Your task to perform on an android device: turn on improve location accuracy Image 0: 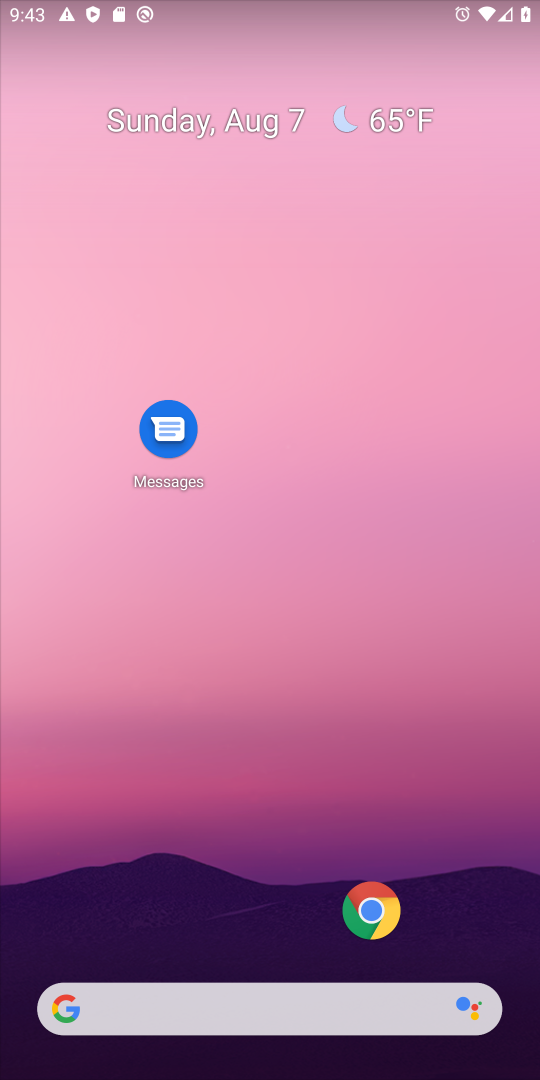
Step 0: drag from (319, 902) to (334, 530)
Your task to perform on an android device: turn on improve location accuracy Image 1: 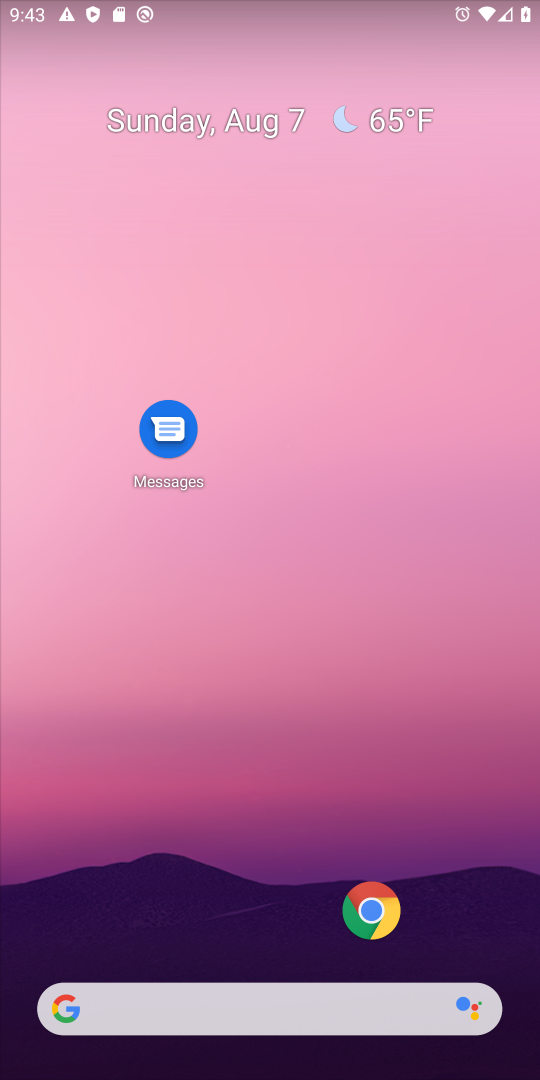
Step 1: drag from (198, 945) to (221, 564)
Your task to perform on an android device: turn on improve location accuracy Image 2: 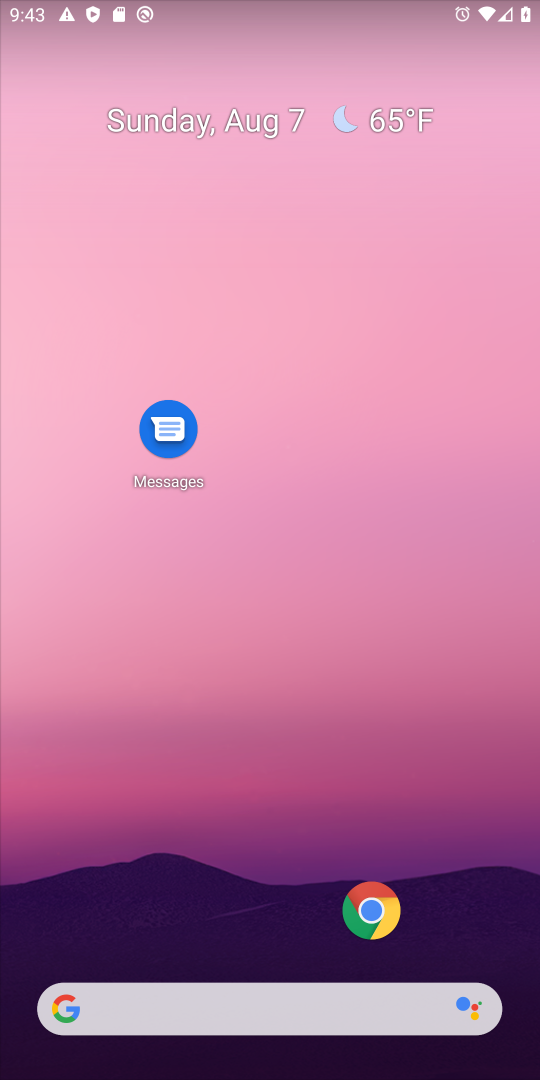
Step 2: drag from (305, 755) to (360, 399)
Your task to perform on an android device: turn on improve location accuracy Image 3: 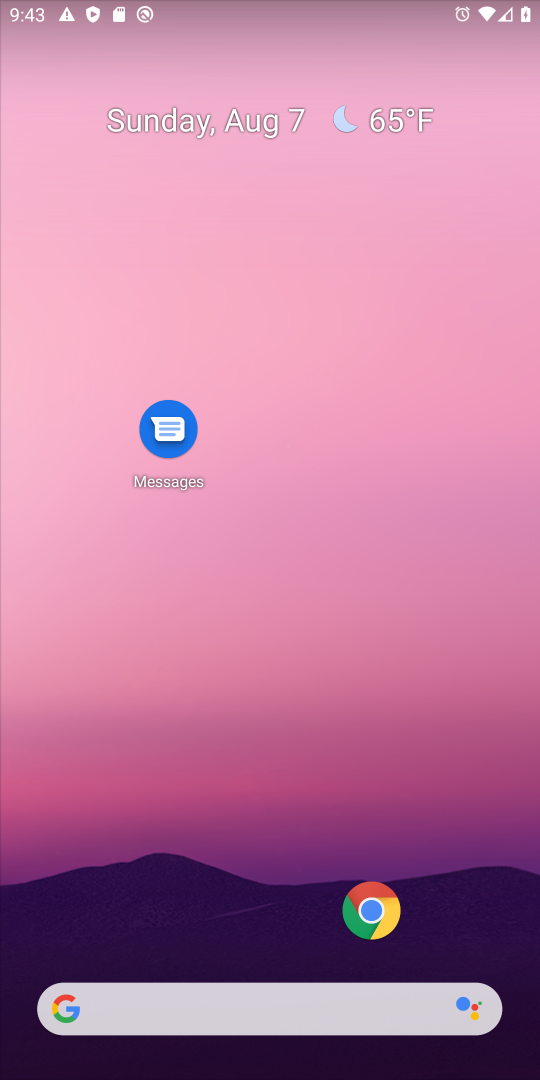
Step 3: drag from (219, 919) to (284, 308)
Your task to perform on an android device: turn on improve location accuracy Image 4: 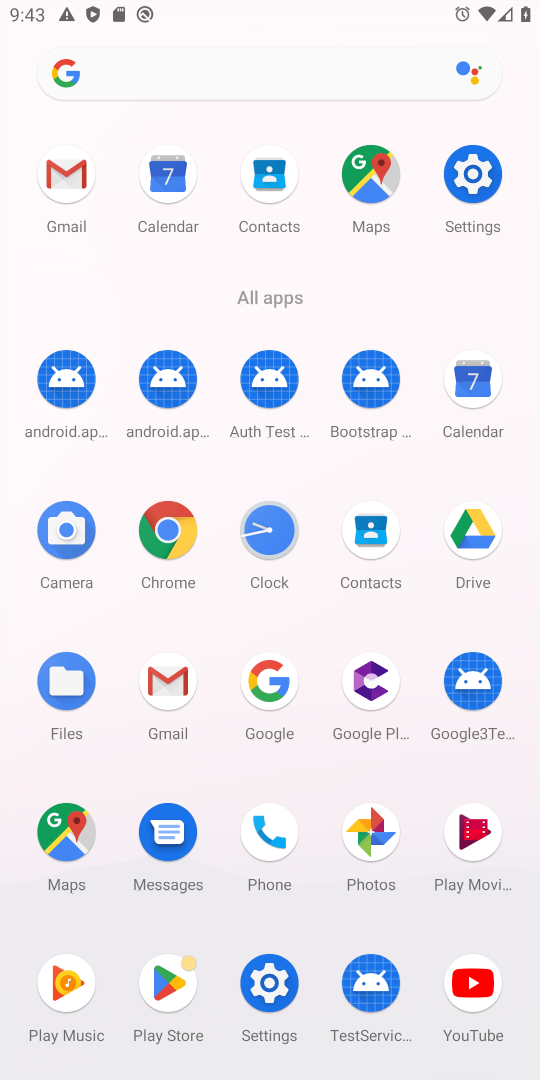
Step 4: click (458, 176)
Your task to perform on an android device: turn on improve location accuracy Image 5: 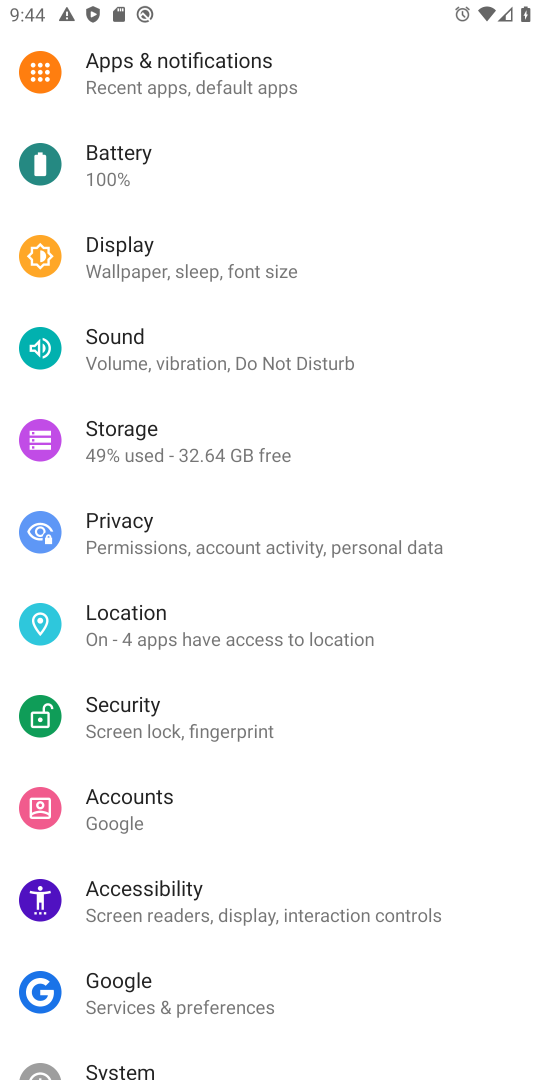
Step 5: drag from (124, 995) to (183, 519)
Your task to perform on an android device: turn on improve location accuracy Image 6: 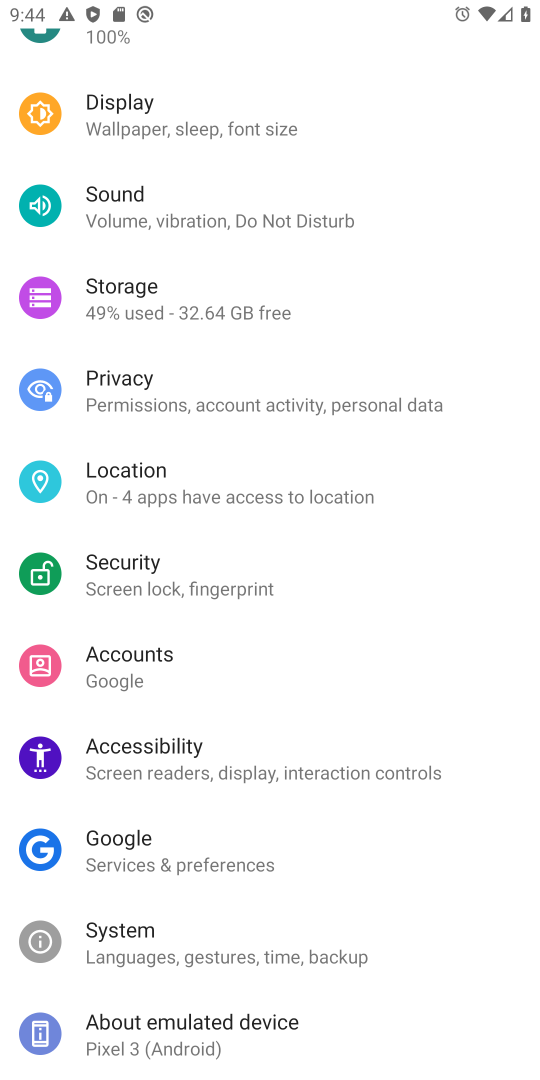
Step 6: click (163, 490)
Your task to perform on an android device: turn on improve location accuracy Image 7: 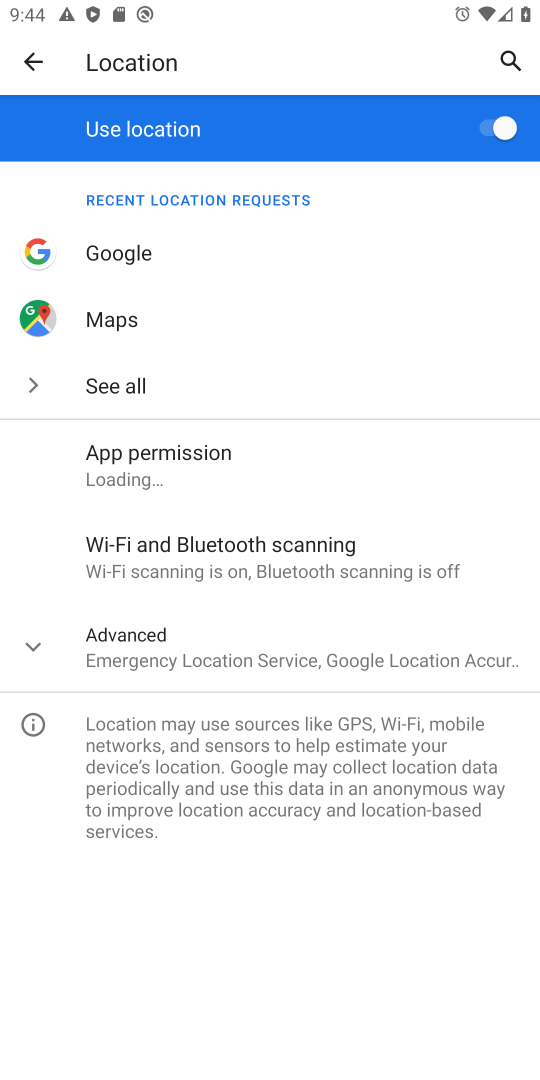
Step 7: click (123, 625)
Your task to perform on an android device: turn on improve location accuracy Image 8: 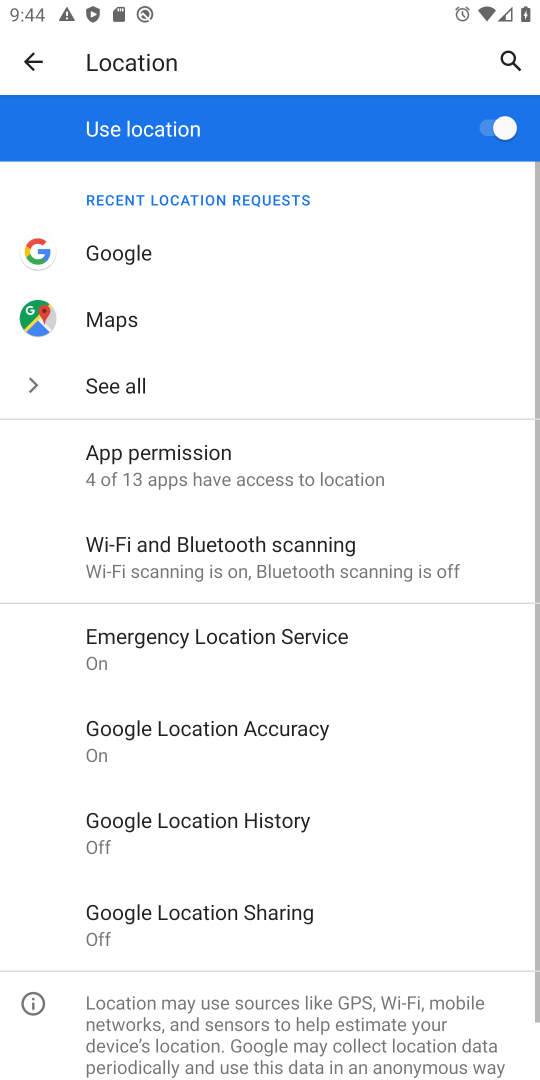
Step 8: click (154, 722)
Your task to perform on an android device: turn on improve location accuracy Image 9: 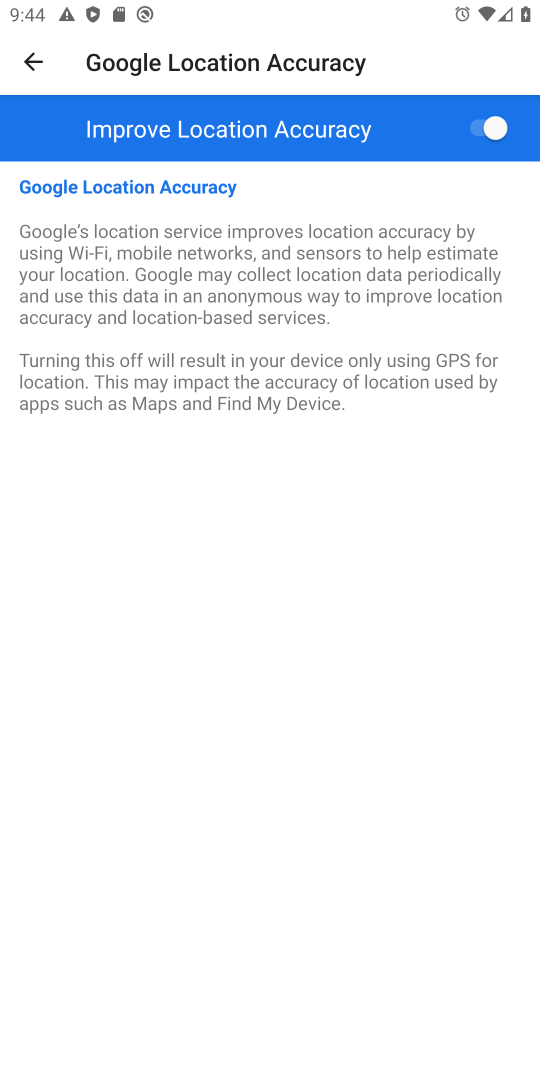
Step 9: task complete